Your task to perform on an android device: open sync settings in chrome Image 0: 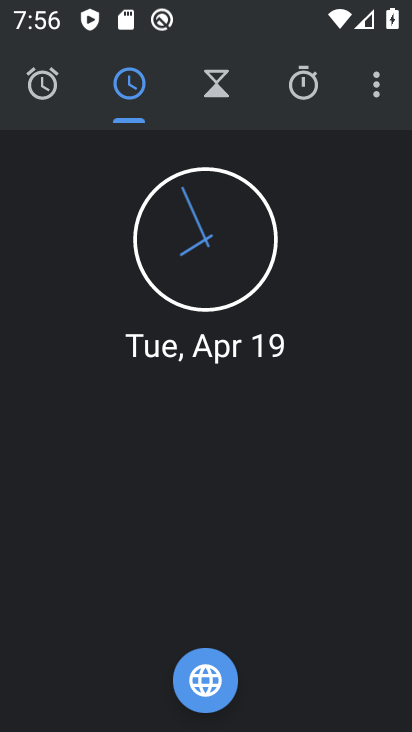
Step 0: press back button
Your task to perform on an android device: open sync settings in chrome Image 1: 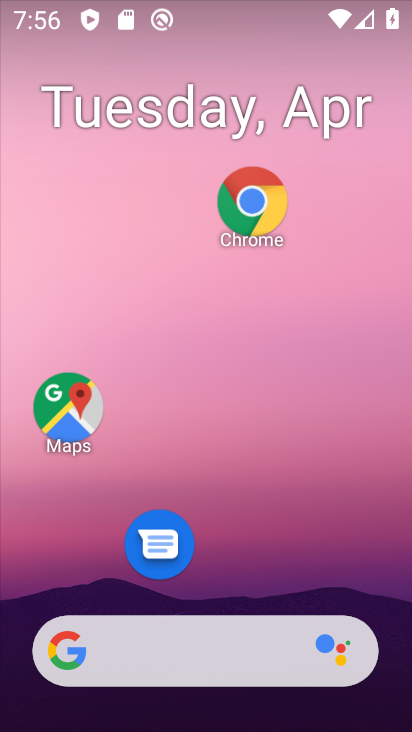
Step 1: click (261, 206)
Your task to perform on an android device: open sync settings in chrome Image 2: 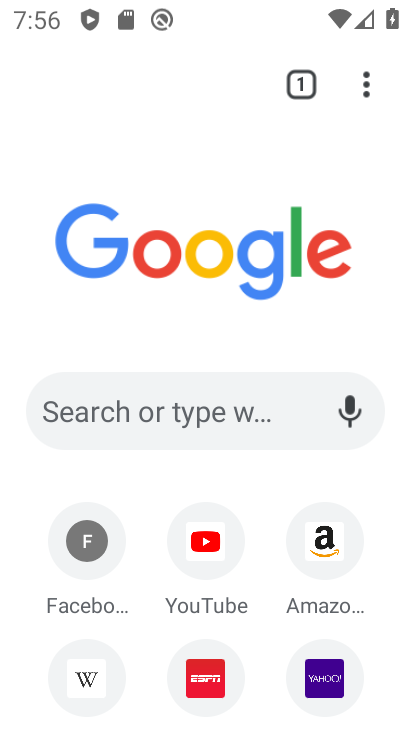
Step 2: click (362, 78)
Your task to perform on an android device: open sync settings in chrome Image 3: 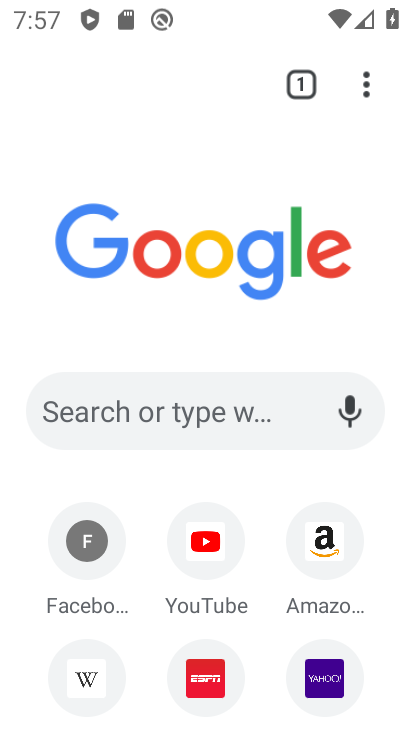
Step 3: click (371, 76)
Your task to perform on an android device: open sync settings in chrome Image 4: 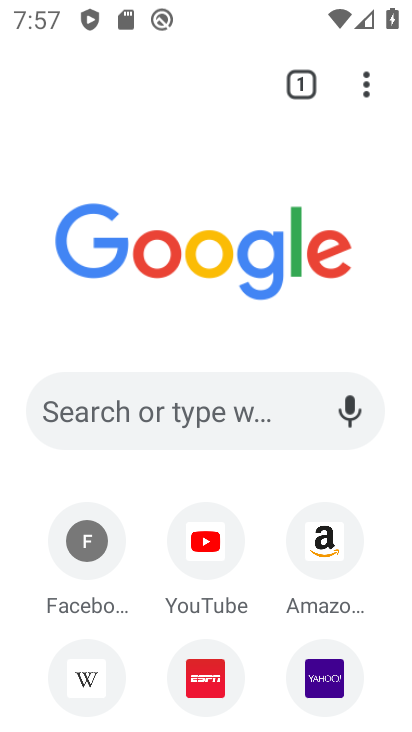
Step 4: drag from (372, 76) to (127, 600)
Your task to perform on an android device: open sync settings in chrome Image 5: 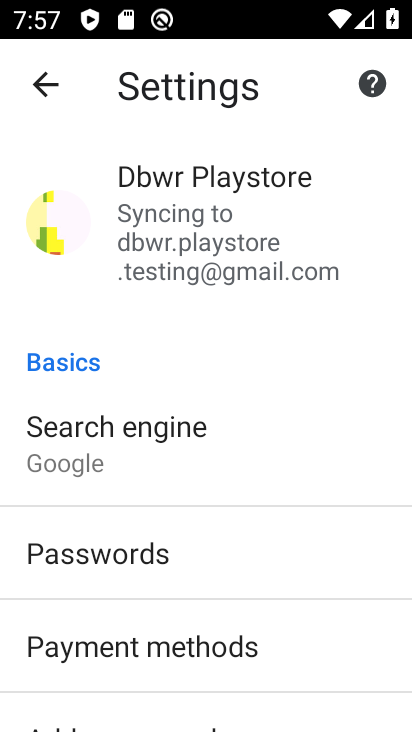
Step 5: click (195, 188)
Your task to perform on an android device: open sync settings in chrome Image 6: 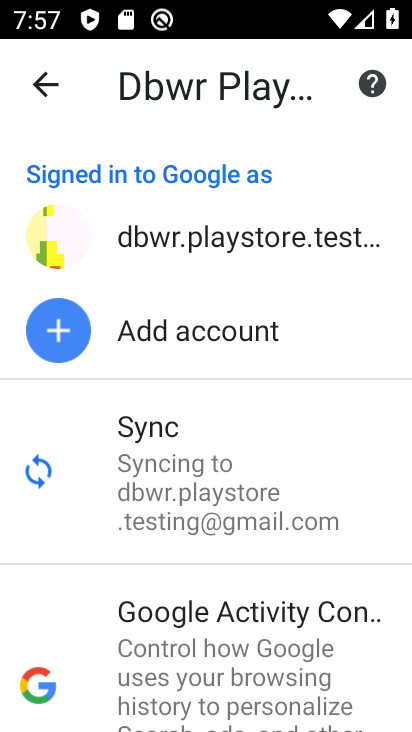
Step 6: click (198, 505)
Your task to perform on an android device: open sync settings in chrome Image 7: 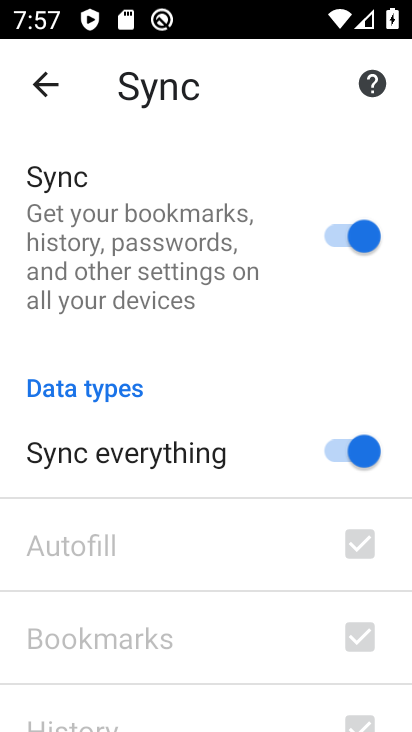
Step 7: task complete